Your task to perform on an android device: check storage Image 0: 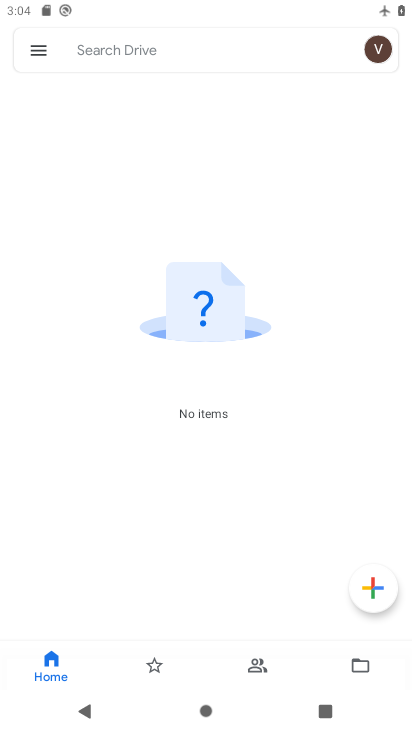
Step 0: press home button
Your task to perform on an android device: check storage Image 1: 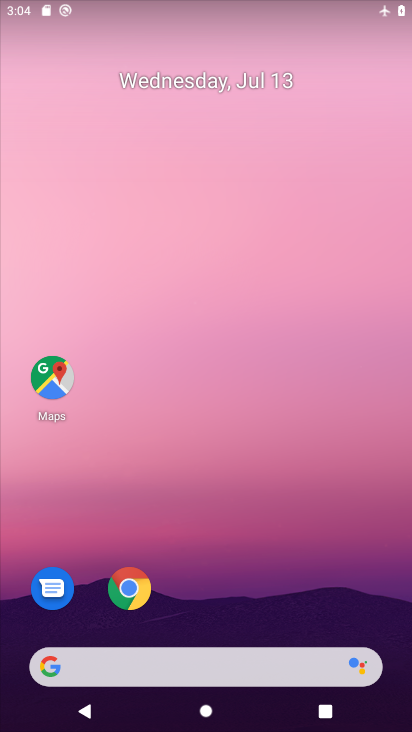
Step 1: drag from (214, 639) to (131, 111)
Your task to perform on an android device: check storage Image 2: 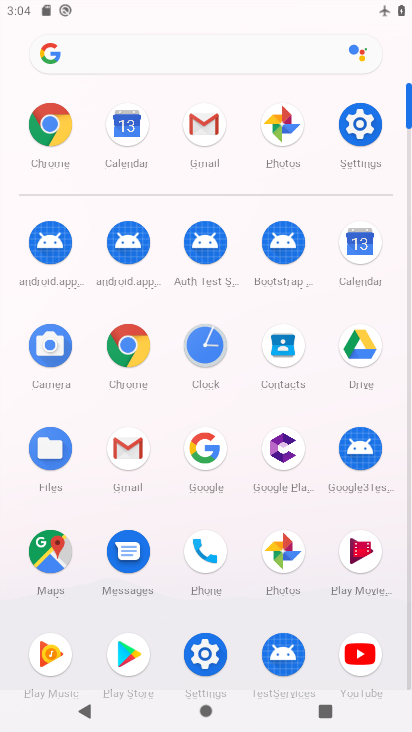
Step 2: click (355, 128)
Your task to perform on an android device: check storage Image 3: 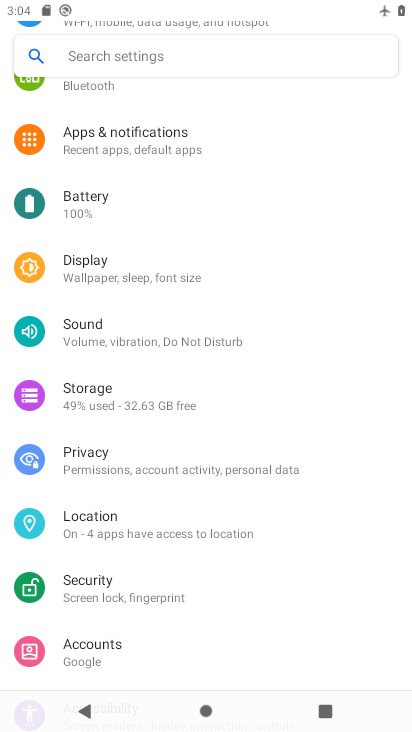
Step 3: click (100, 388)
Your task to perform on an android device: check storage Image 4: 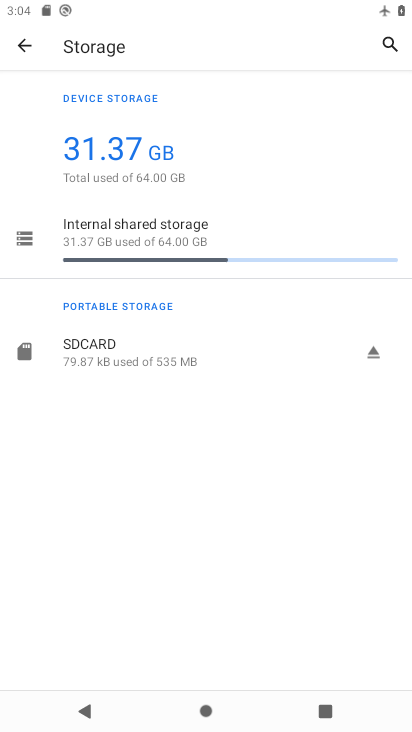
Step 4: click (114, 247)
Your task to perform on an android device: check storage Image 5: 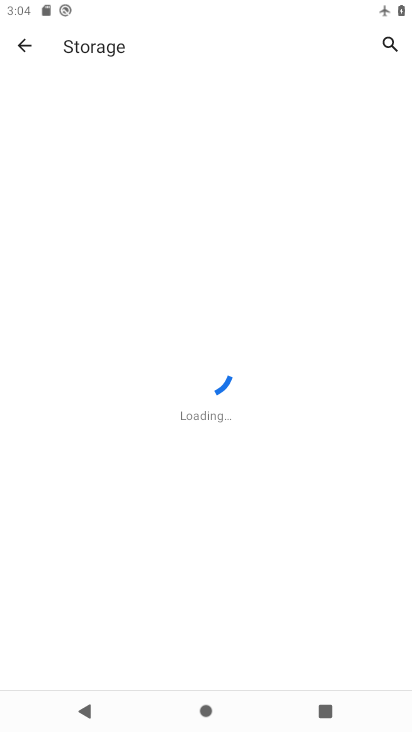
Step 5: task complete